Your task to perform on an android device: Set the phone to "Do not disturb". Image 0: 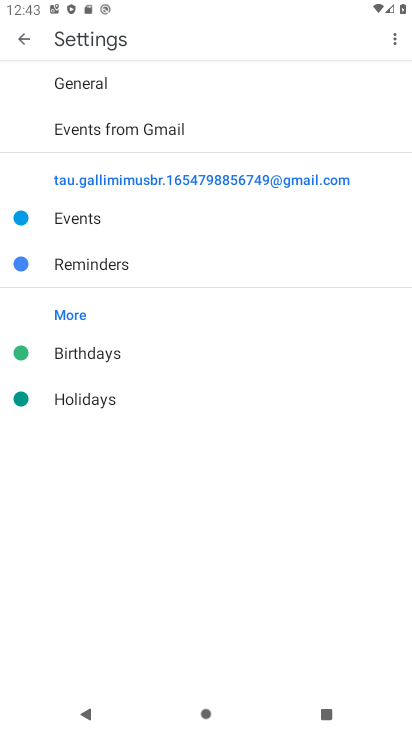
Step 0: click (306, 550)
Your task to perform on an android device: Set the phone to "Do not disturb". Image 1: 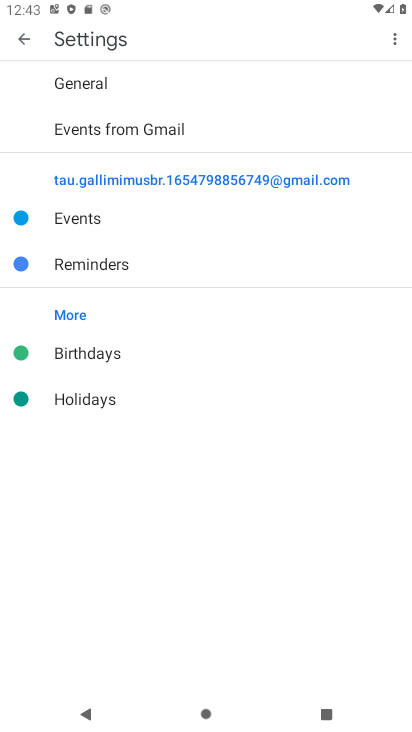
Step 1: press home button
Your task to perform on an android device: Set the phone to "Do not disturb". Image 2: 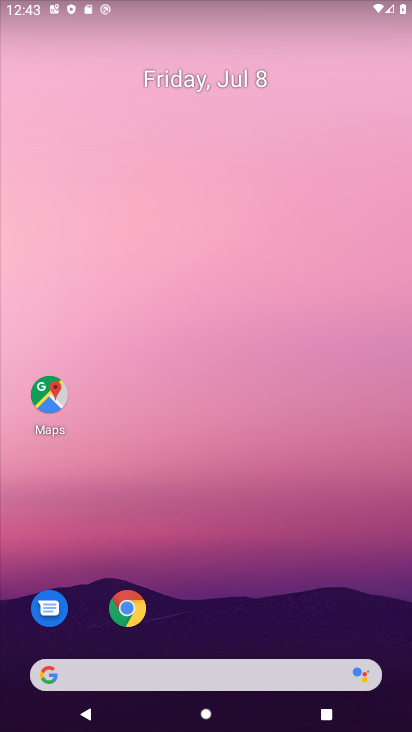
Step 2: drag from (259, 554) to (264, 53)
Your task to perform on an android device: Set the phone to "Do not disturb". Image 3: 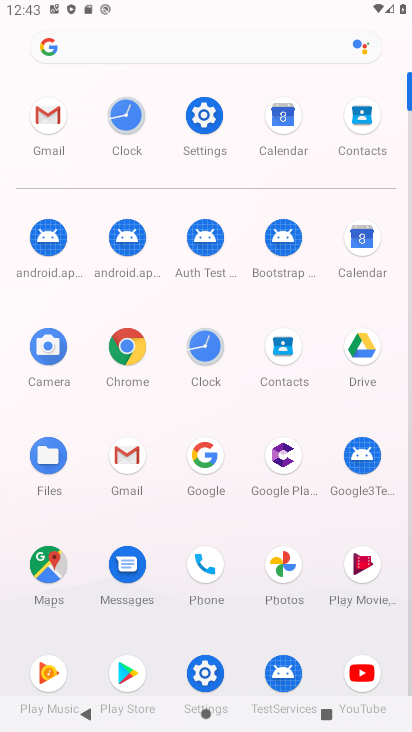
Step 3: click (215, 115)
Your task to perform on an android device: Set the phone to "Do not disturb". Image 4: 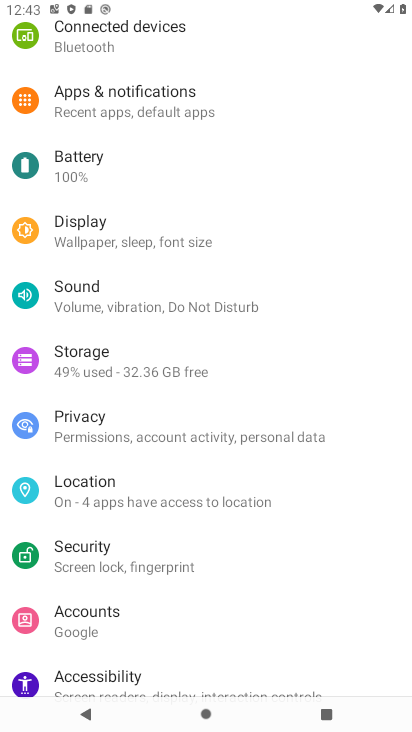
Step 4: click (221, 319)
Your task to perform on an android device: Set the phone to "Do not disturb". Image 5: 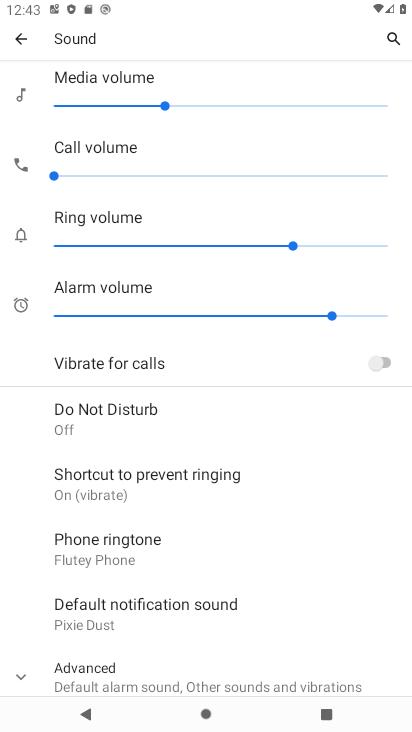
Step 5: click (192, 419)
Your task to perform on an android device: Set the phone to "Do not disturb". Image 6: 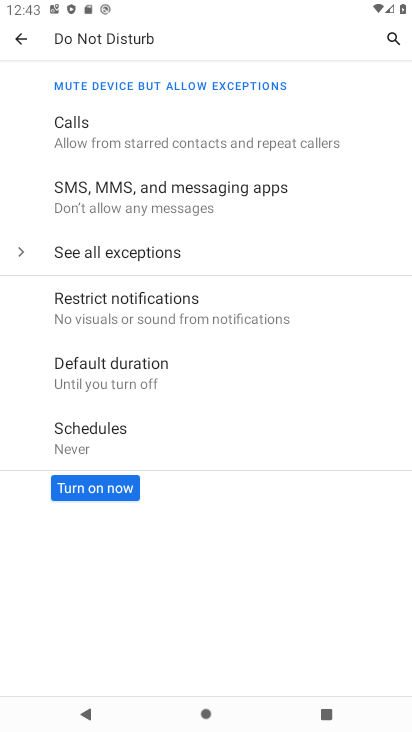
Step 6: click (112, 487)
Your task to perform on an android device: Set the phone to "Do not disturb". Image 7: 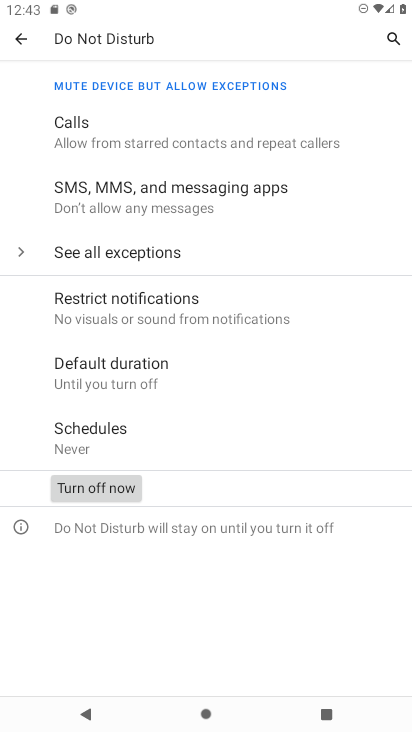
Step 7: task complete